Your task to perform on an android device: Open the map Image 0: 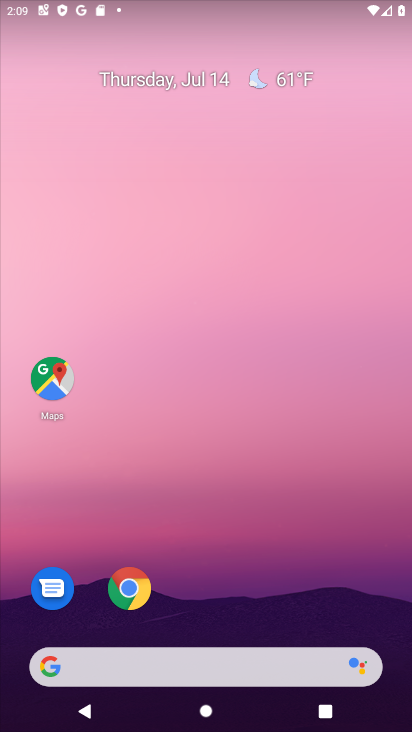
Step 0: click (52, 381)
Your task to perform on an android device: Open the map Image 1: 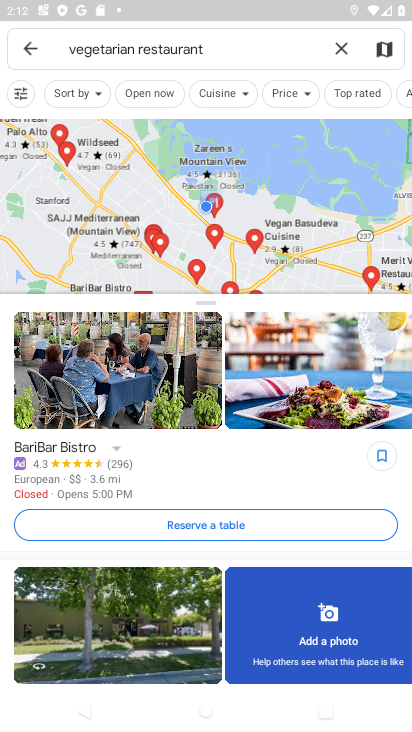
Step 1: task complete